Your task to perform on an android device: Search for sushi restaurants on Maps Image 0: 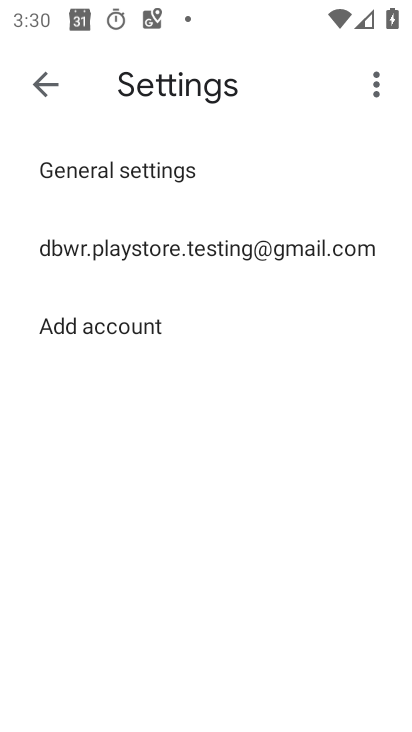
Step 0: press home button
Your task to perform on an android device: Search for sushi restaurants on Maps Image 1: 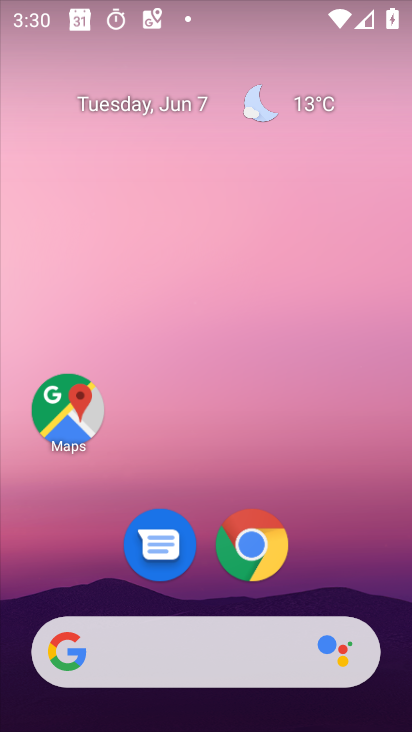
Step 1: click (59, 419)
Your task to perform on an android device: Search for sushi restaurants on Maps Image 2: 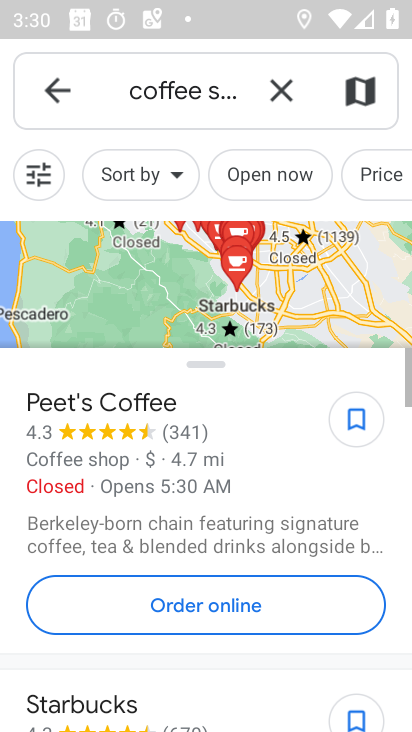
Step 2: click (287, 92)
Your task to perform on an android device: Search for sushi restaurants on Maps Image 3: 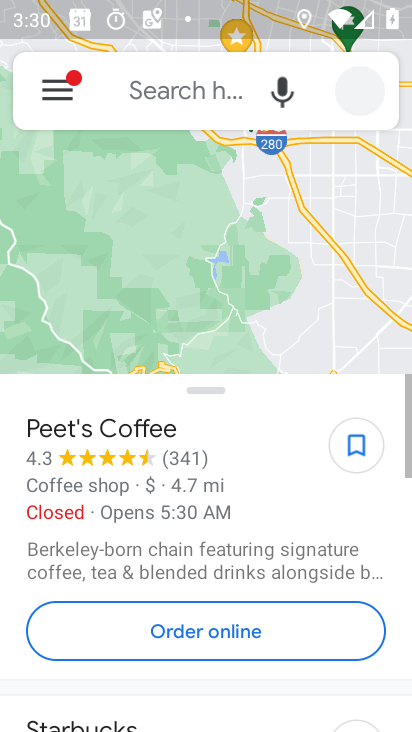
Step 3: click (160, 83)
Your task to perform on an android device: Search for sushi restaurants on Maps Image 4: 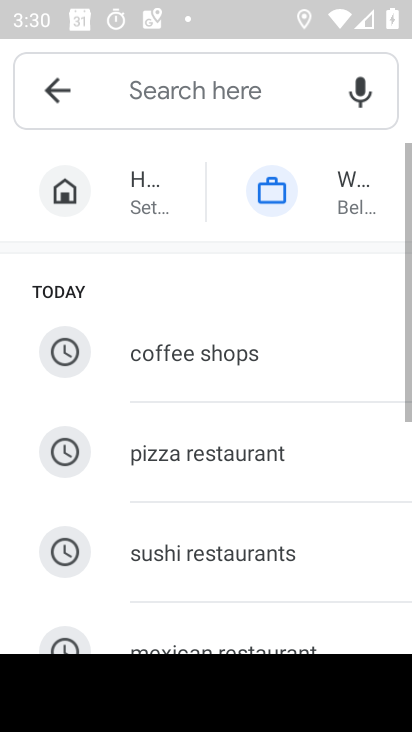
Step 4: click (227, 543)
Your task to perform on an android device: Search for sushi restaurants on Maps Image 5: 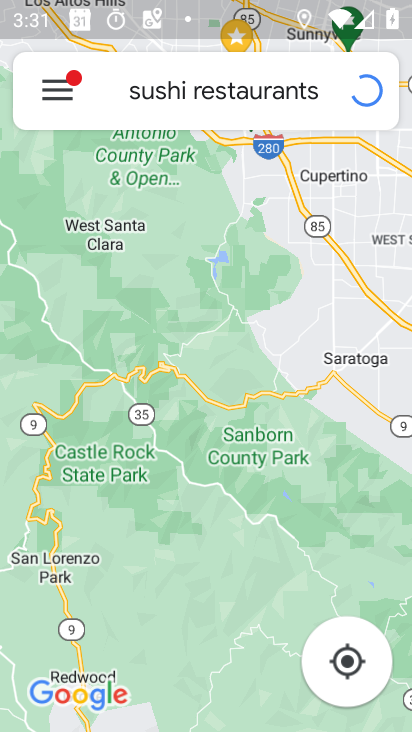
Step 5: task complete